Your task to perform on an android device: check storage Image 0: 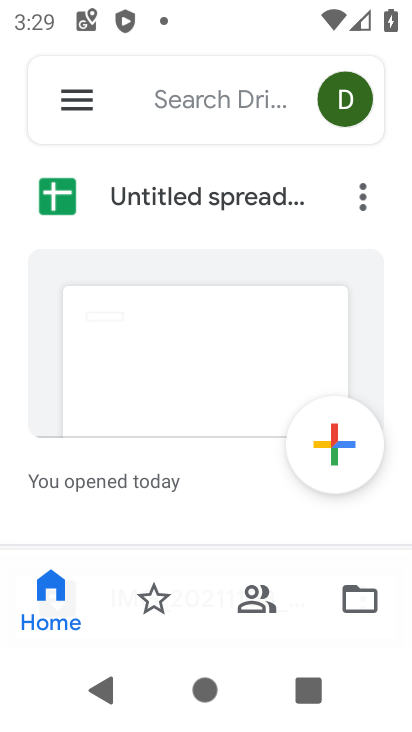
Step 0: task complete